Your task to perform on an android device: Go to settings Image 0: 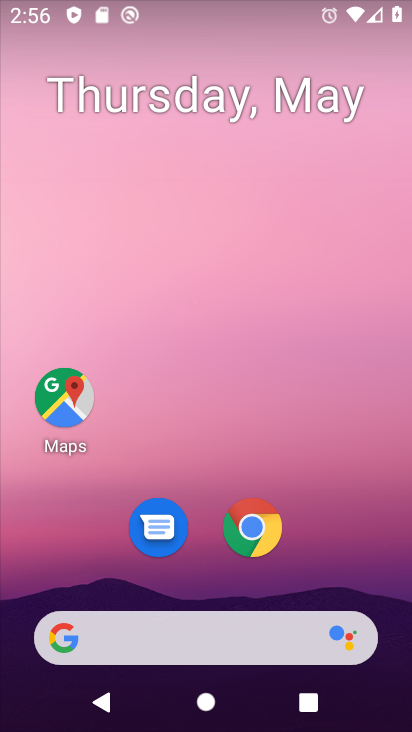
Step 0: drag from (180, 605) to (306, 74)
Your task to perform on an android device: Go to settings Image 1: 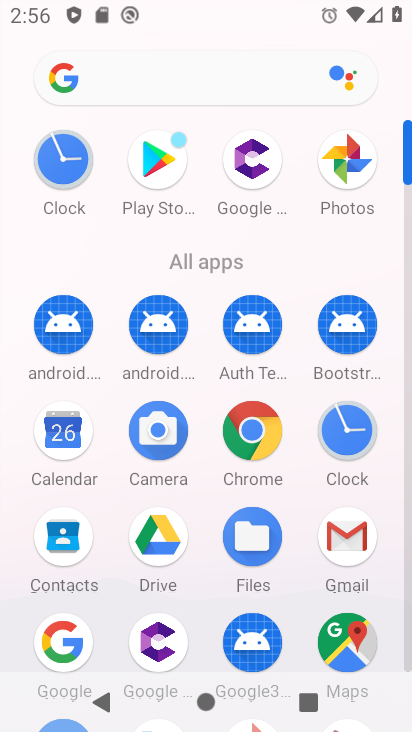
Step 1: drag from (151, 616) to (235, 224)
Your task to perform on an android device: Go to settings Image 2: 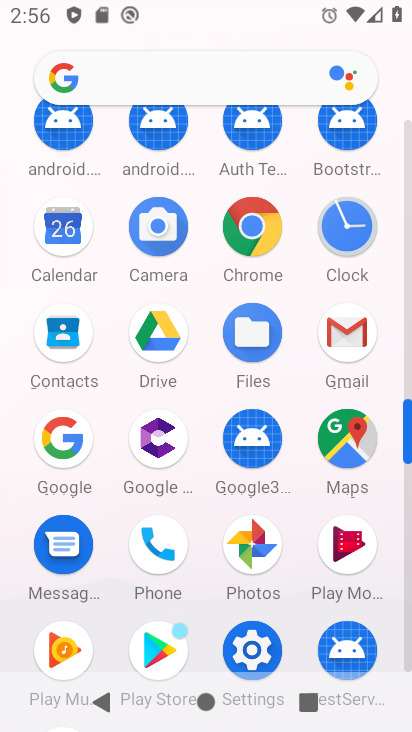
Step 2: click (247, 653)
Your task to perform on an android device: Go to settings Image 3: 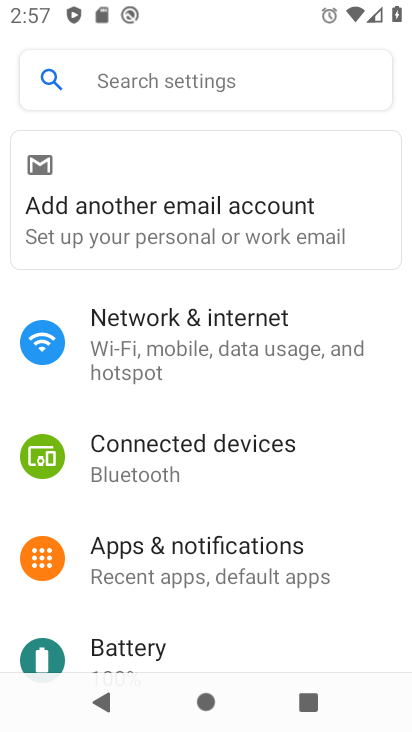
Step 3: task complete